Your task to perform on an android device: Open calendar and show me the first week of next month Image 0: 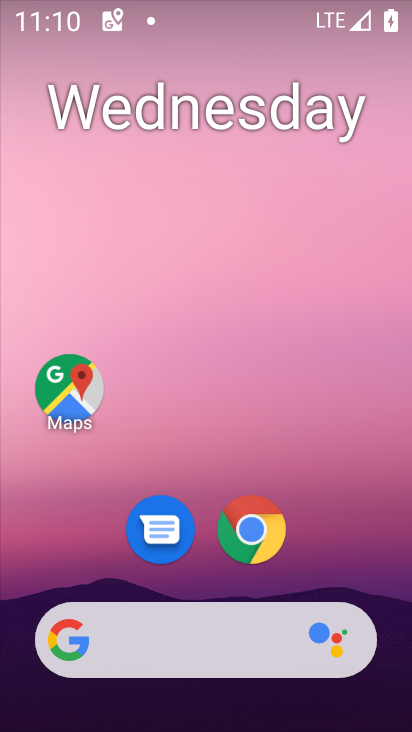
Step 0: drag from (396, 633) to (315, 8)
Your task to perform on an android device: Open calendar and show me the first week of next month Image 1: 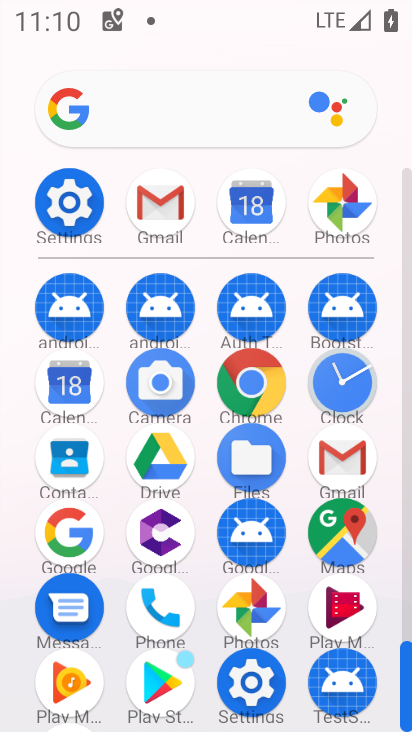
Step 1: click (69, 380)
Your task to perform on an android device: Open calendar and show me the first week of next month Image 2: 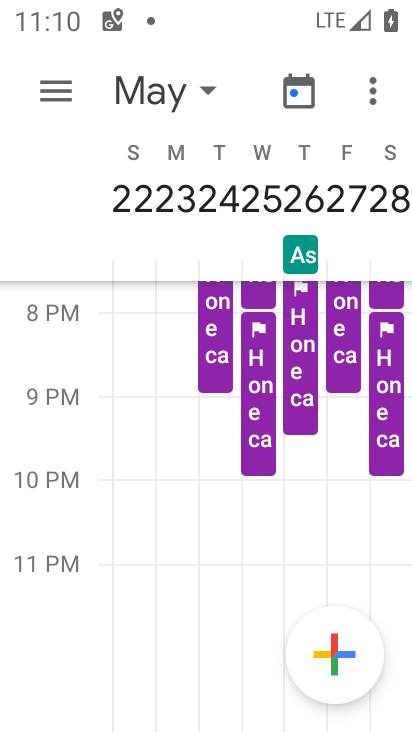
Step 2: click (191, 86)
Your task to perform on an android device: Open calendar and show me the first week of next month Image 3: 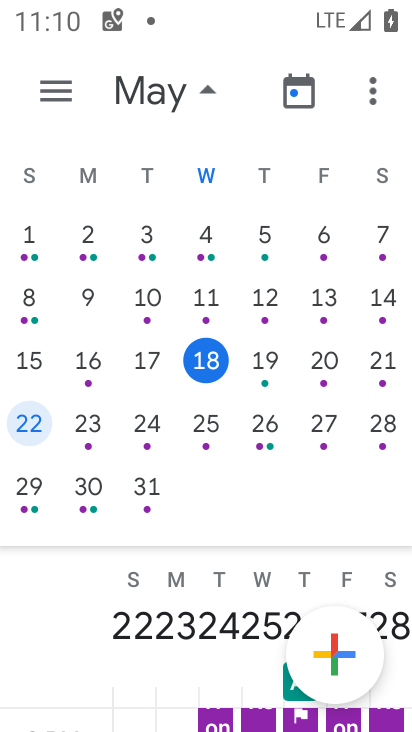
Step 3: task complete